Your task to perform on an android device: Go to sound settings Image 0: 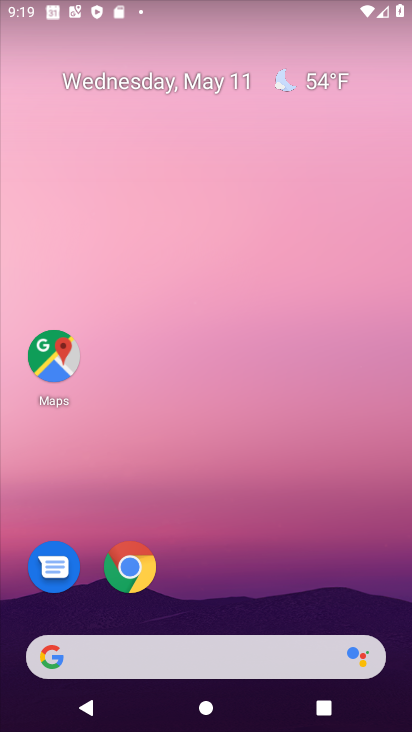
Step 0: drag from (210, 590) to (310, 2)
Your task to perform on an android device: Go to sound settings Image 1: 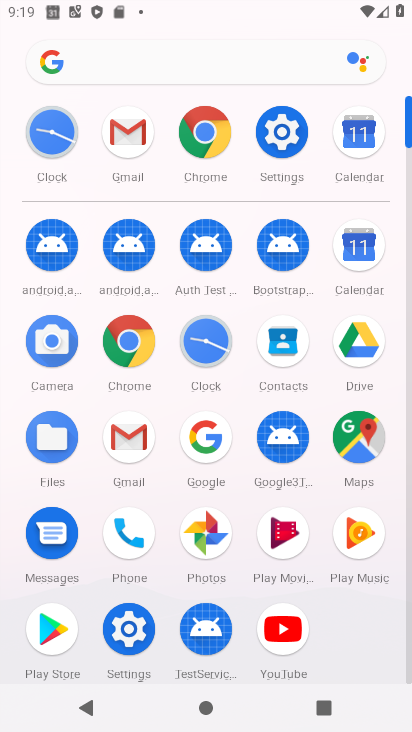
Step 1: click (130, 630)
Your task to perform on an android device: Go to sound settings Image 2: 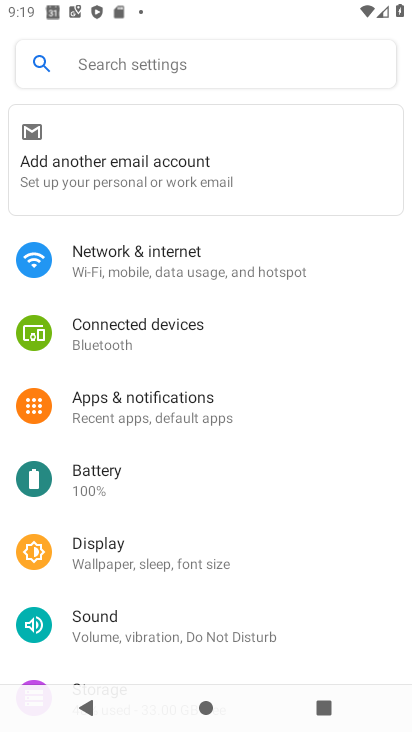
Step 2: drag from (154, 533) to (201, 328)
Your task to perform on an android device: Go to sound settings Image 3: 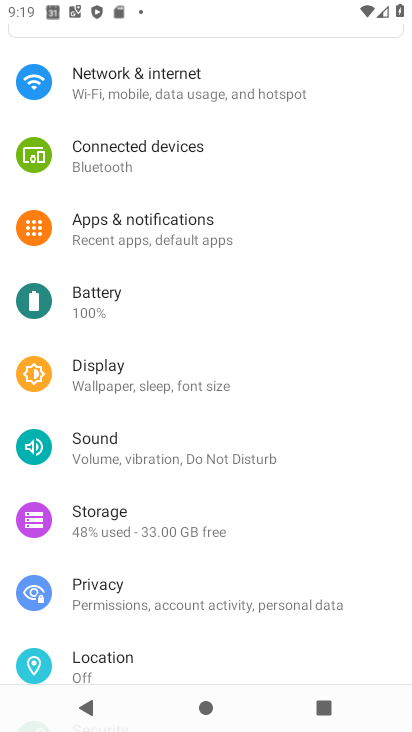
Step 3: click (127, 465)
Your task to perform on an android device: Go to sound settings Image 4: 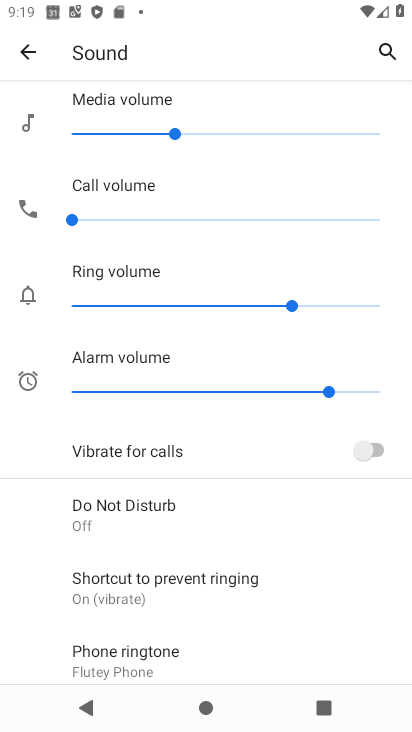
Step 4: task complete